Your task to perform on an android device: turn smart compose on in the gmail app Image 0: 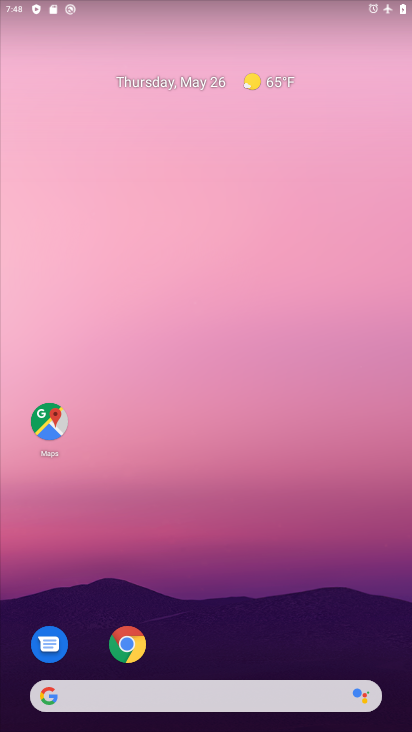
Step 0: drag from (181, 643) to (204, 269)
Your task to perform on an android device: turn smart compose on in the gmail app Image 1: 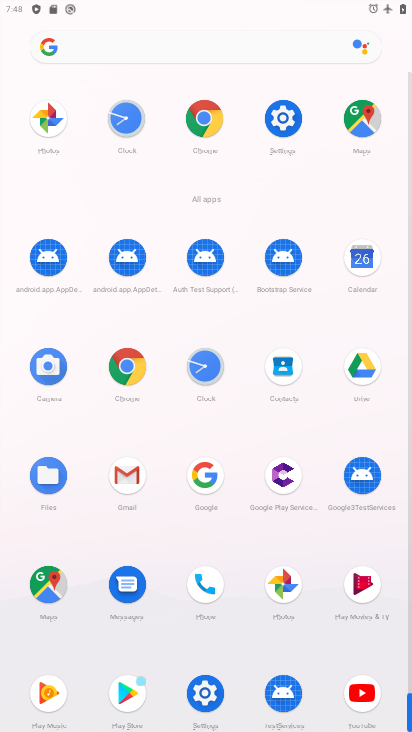
Step 1: click (127, 491)
Your task to perform on an android device: turn smart compose on in the gmail app Image 2: 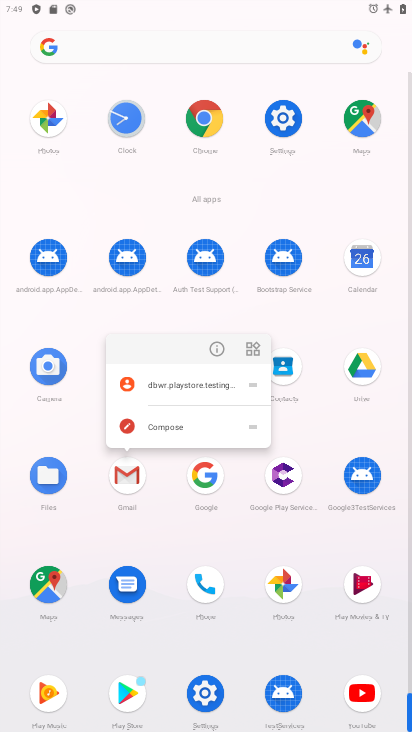
Step 2: click (224, 339)
Your task to perform on an android device: turn smart compose on in the gmail app Image 3: 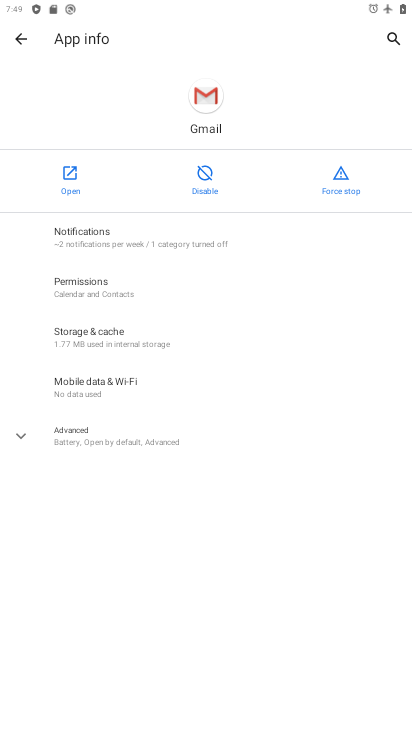
Step 3: click (57, 187)
Your task to perform on an android device: turn smart compose on in the gmail app Image 4: 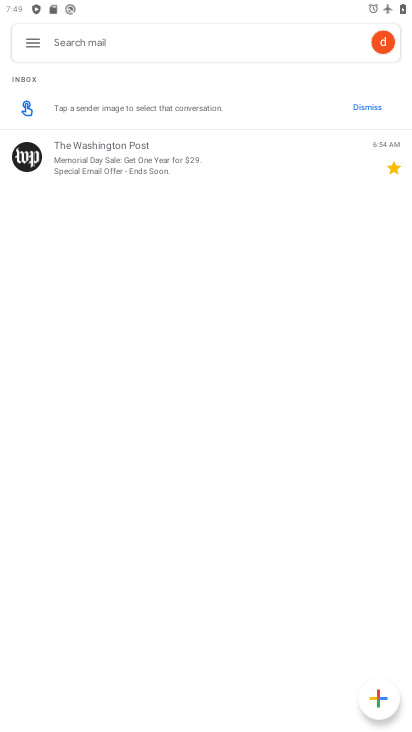
Step 4: click (19, 47)
Your task to perform on an android device: turn smart compose on in the gmail app Image 5: 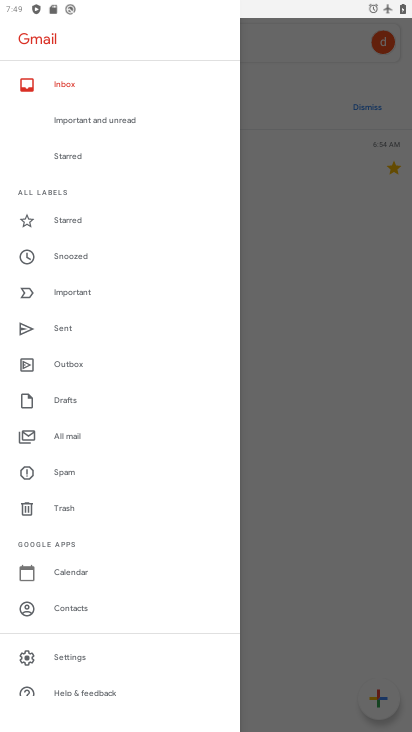
Step 5: click (72, 664)
Your task to perform on an android device: turn smart compose on in the gmail app Image 6: 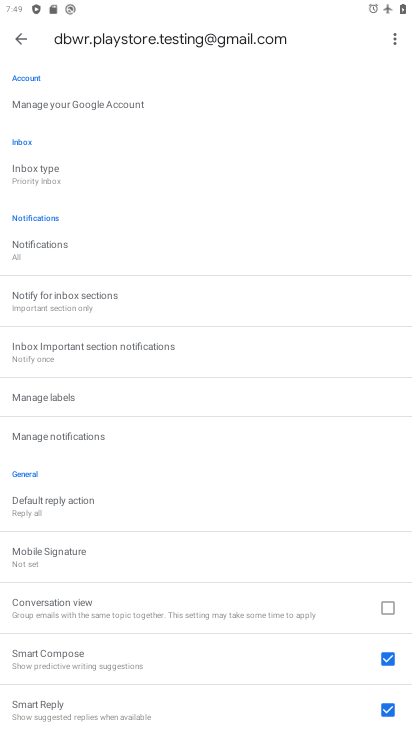
Step 6: task complete